Your task to perform on an android device: find which apps use the phone's location Image 0: 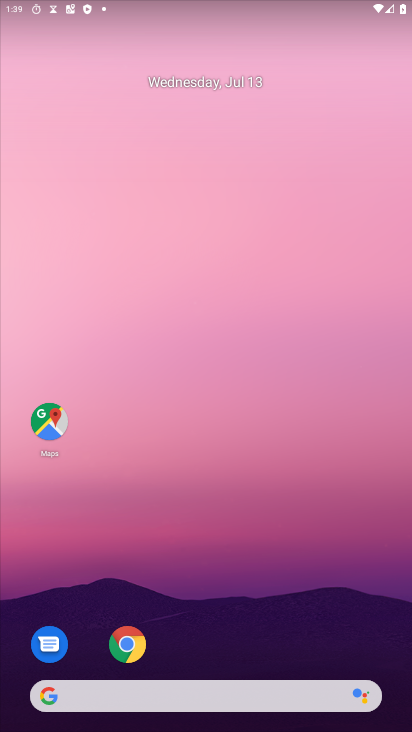
Step 0: press home button
Your task to perform on an android device: find which apps use the phone's location Image 1: 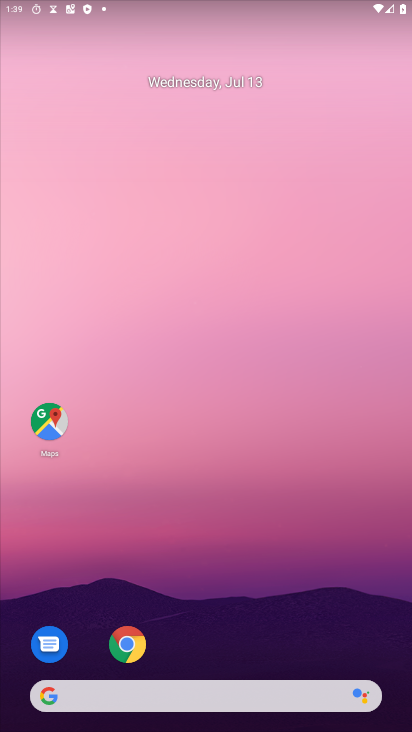
Step 1: drag from (282, 590) to (214, 100)
Your task to perform on an android device: find which apps use the phone's location Image 2: 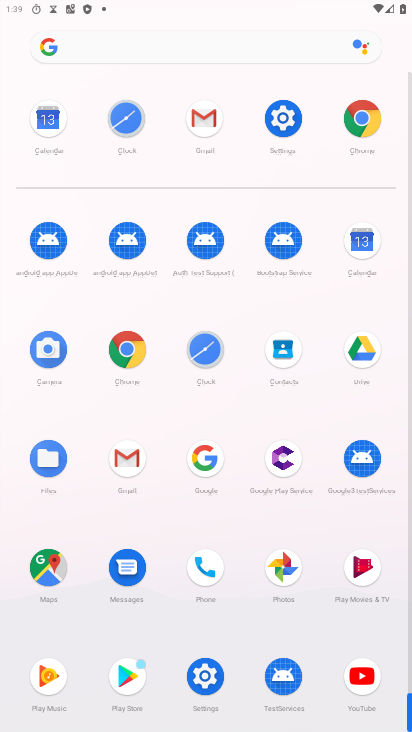
Step 2: click (283, 120)
Your task to perform on an android device: find which apps use the phone's location Image 3: 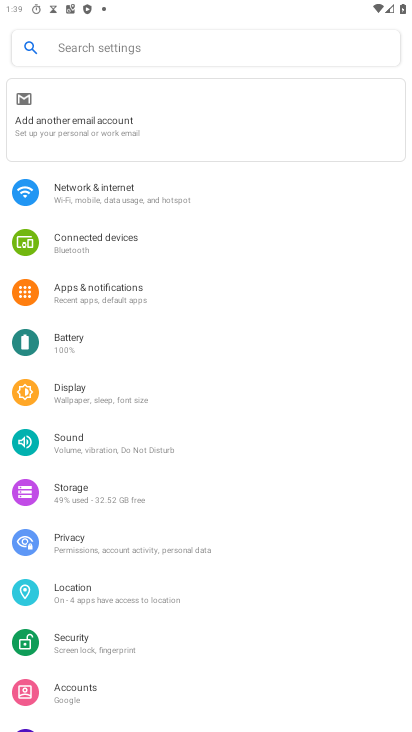
Step 3: click (91, 594)
Your task to perform on an android device: find which apps use the phone's location Image 4: 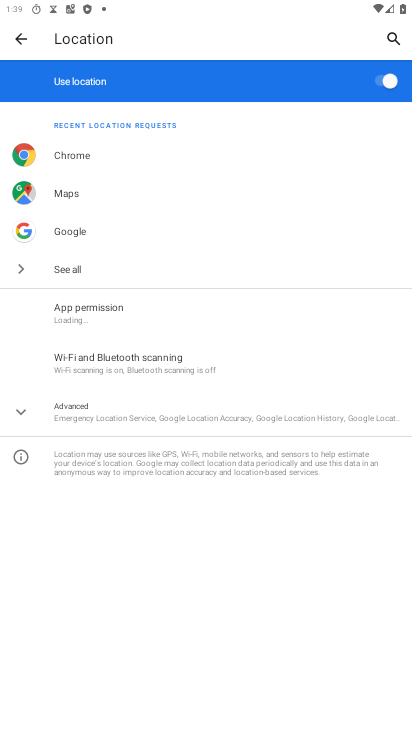
Step 4: click (98, 310)
Your task to perform on an android device: find which apps use the phone's location Image 5: 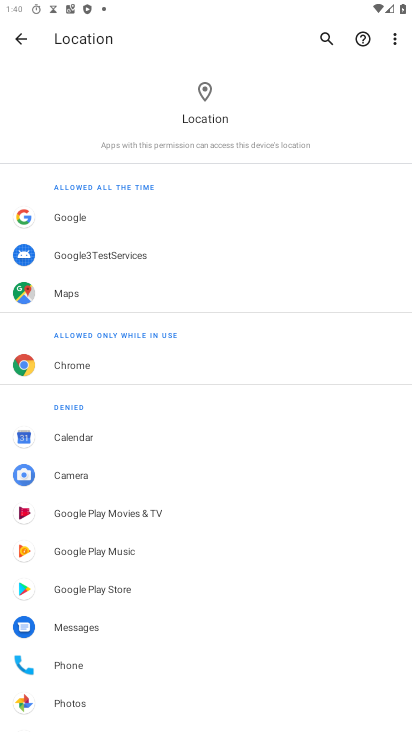
Step 5: task complete